Your task to perform on an android device: turn notification dots on Image 0: 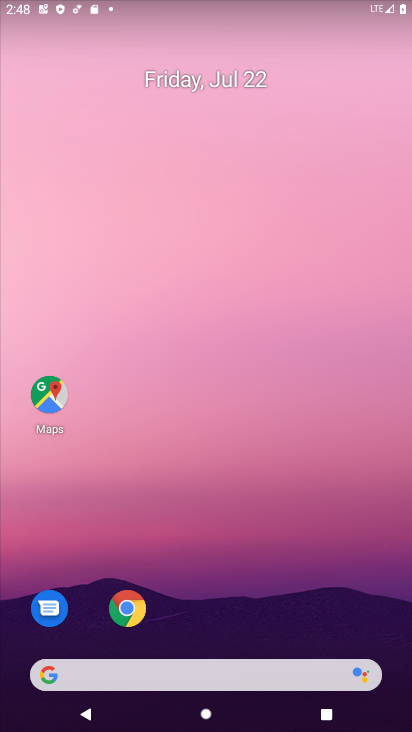
Step 0: drag from (273, 600) to (352, 256)
Your task to perform on an android device: turn notification dots on Image 1: 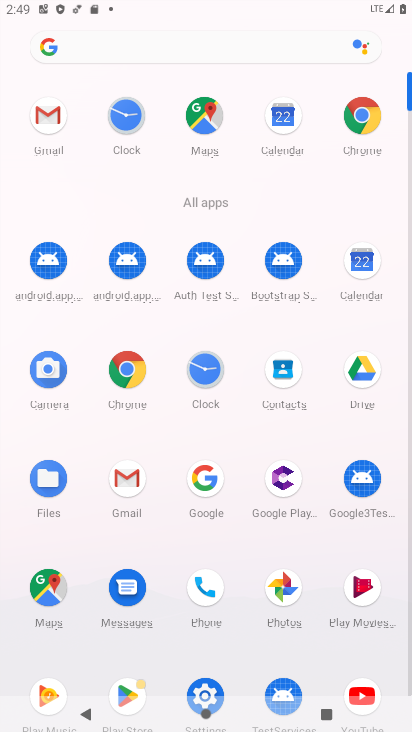
Step 1: click (206, 687)
Your task to perform on an android device: turn notification dots on Image 2: 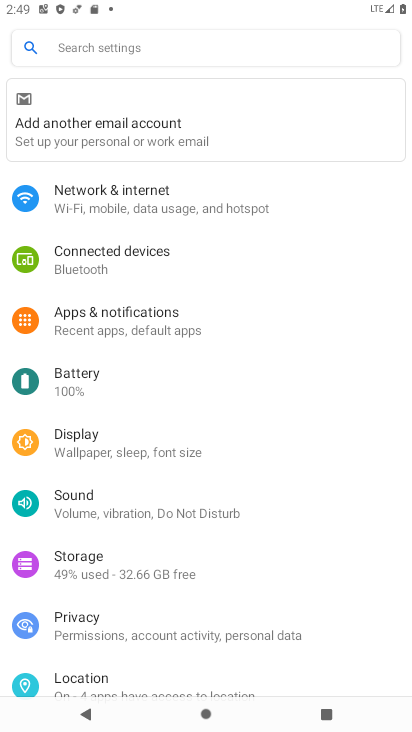
Step 2: click (153, 338)
Your task to perform on an android device: turn notification dots on Image 3: 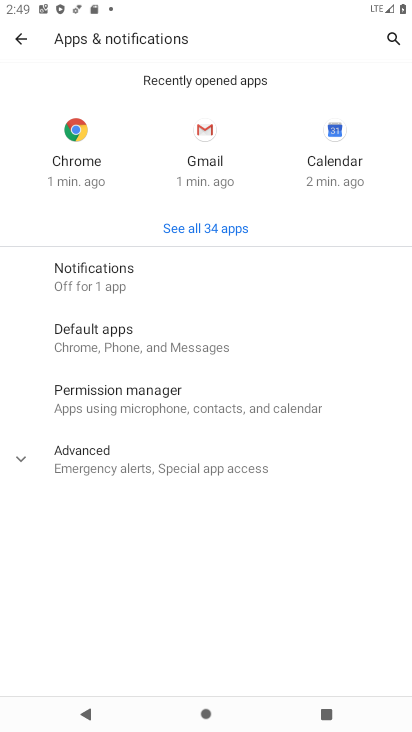
Step 3: click (147, 446)
Your task to perform on an android device: turn notification dots on Image 4: 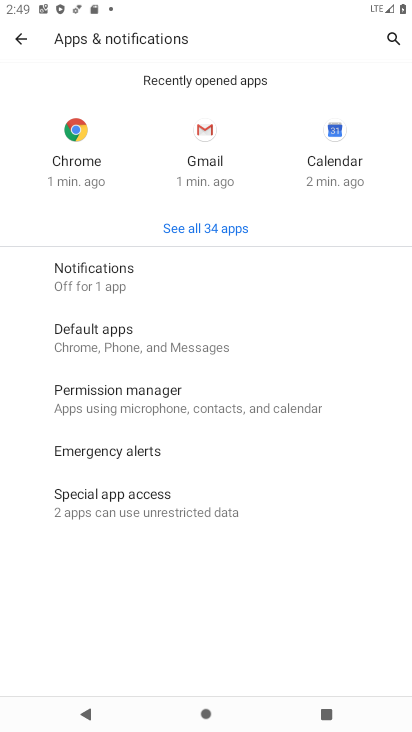
Step 4: click (70, 263)
Your task to perform on an android device: turn notification dots on Image 5: 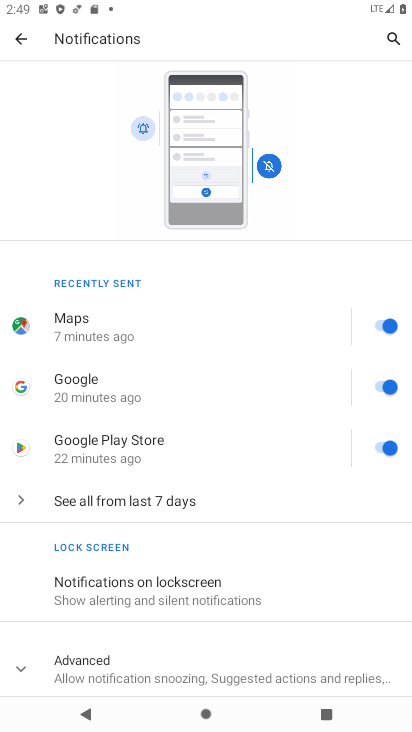
Step 5: drag from (257, 628) to (208, 277)
Your task to perform on an android device: turn notification dots on Image 6: 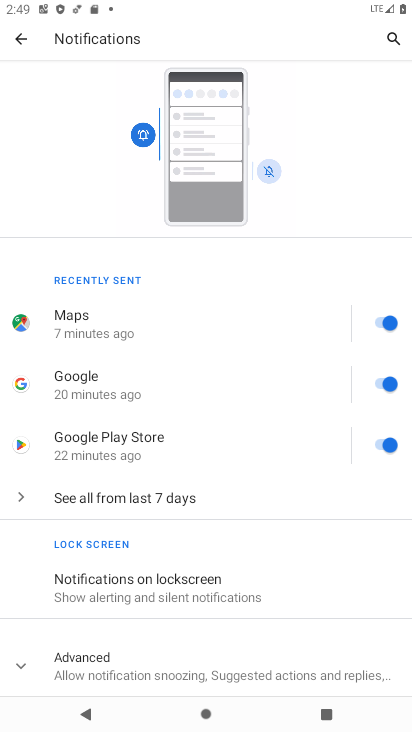
Step 6: click (238, 655)
Your task to perform on an android device: turn notification dots on Image 7: 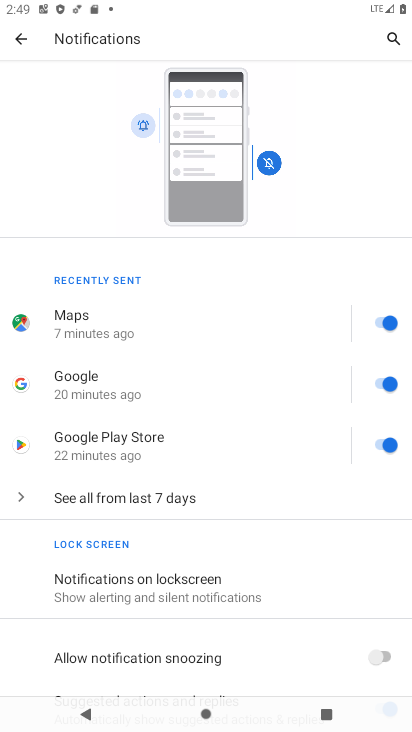
Step 7: task complete